Your task to perform on an android device: What's the weather going to be this weekend? Image 0: 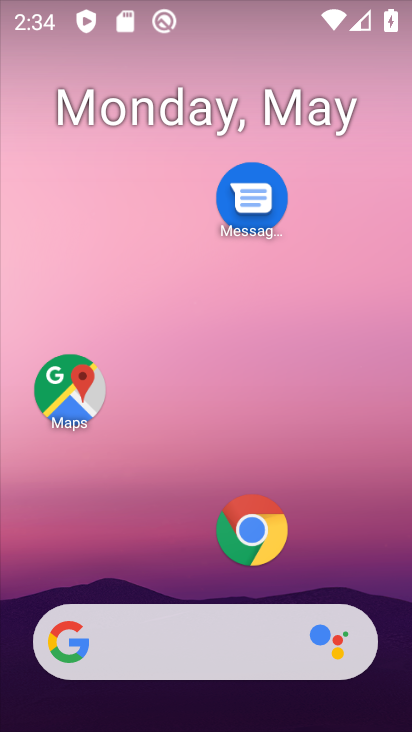
Step 0: click (172, 650)
Your task to perform on an android device: What's the weather going to be this weekend? Image 1: 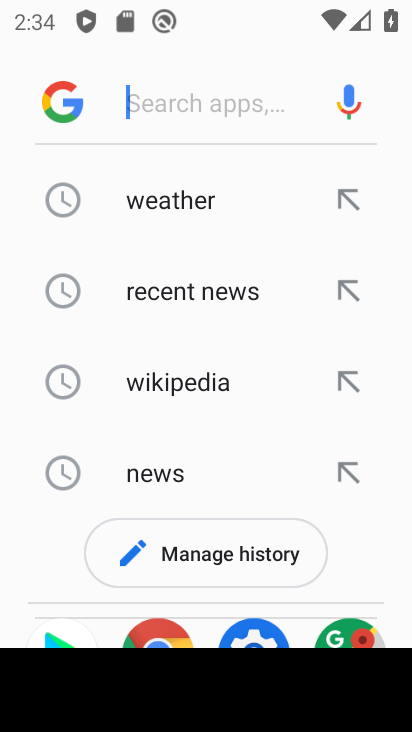
Step 1: click (153, 205)
Your task to perform on an android device: What's the weather going to be this weekend? Image 2: 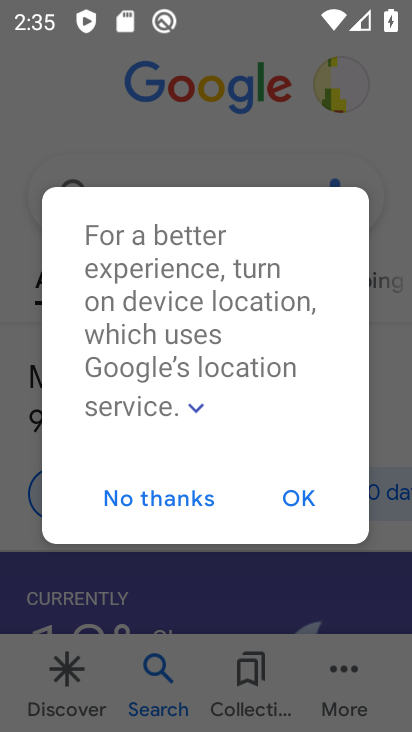
Step 2: click (285, 500)
Your task to perform on an android device: What's the weather going to be this weekend? Image 3: 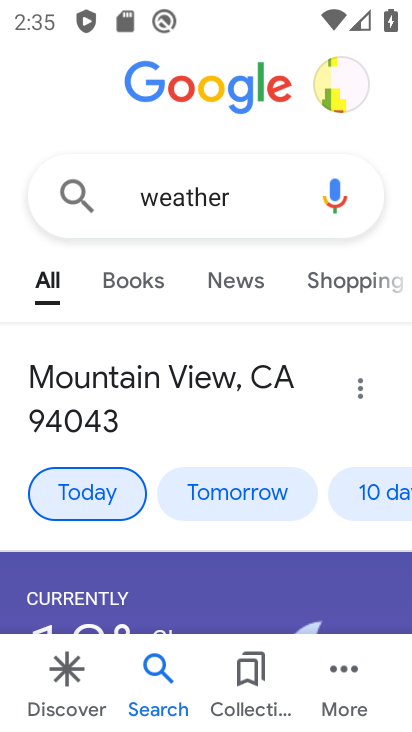
Step 3: click (389, 490)
Your task to perform on an android device: What's the weather going to be this weekend? Image 4: 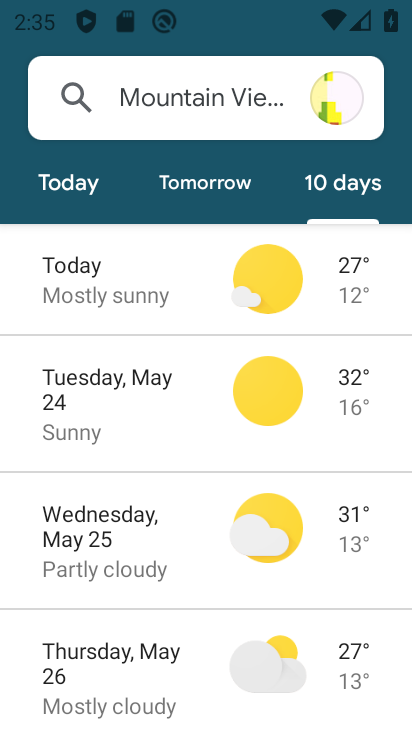
Step 4: task complete